Your task to perform on an android device: change your default location settings in chrome Image 0: 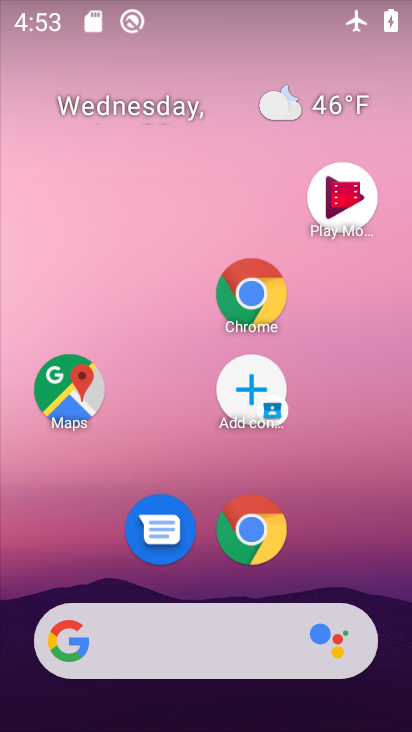
Step 0: click (271, 542)
Your task to perform on an android device: change your default location settings in chrome Image 1: 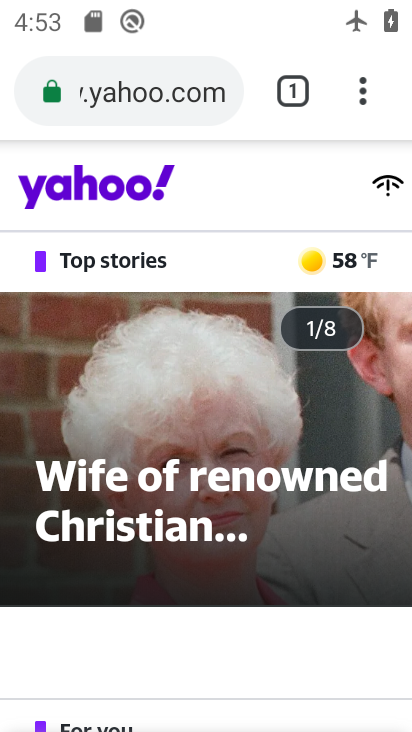
Step 1: drag from (363, 97) to (179, 572)
Your task to perform on an android device: change your default location settings in chrome Image 2: 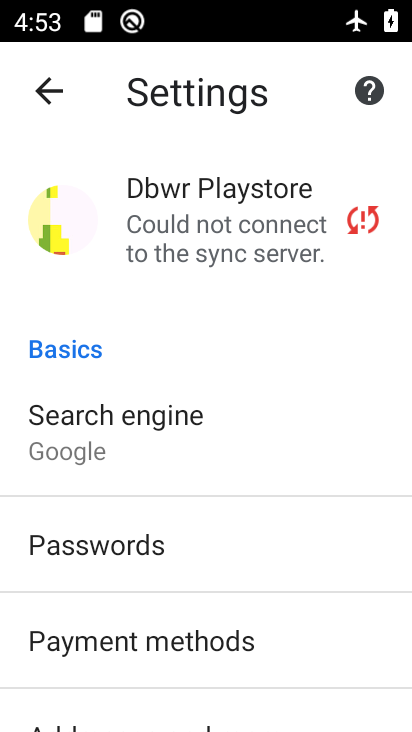
Step 2: drag from (222, 668) to (226, 260)
Your task to perform on an android device: change your default location settings in chrome Image 3: 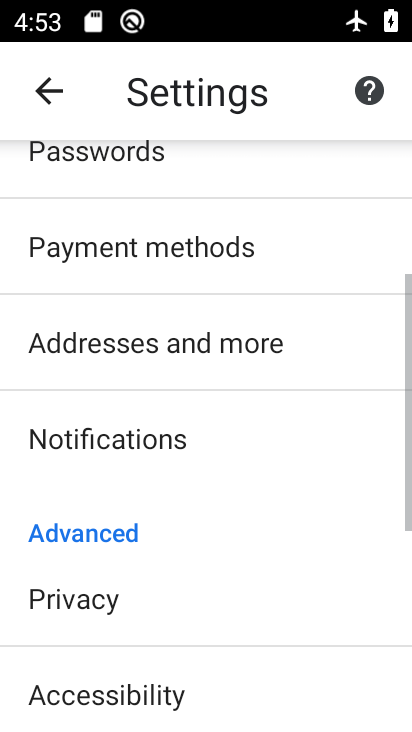
Step 3: drag from (174, 676) to (228, 389)
Your task to perform on an android device: change your default location settings in chrome Image 4: 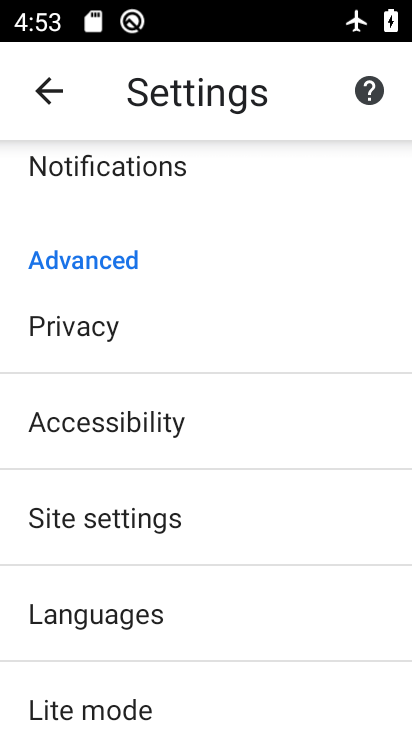
Step 4: click (165, 534)
Your task to perform on an android device: change your default location settings in chrome Image 5: 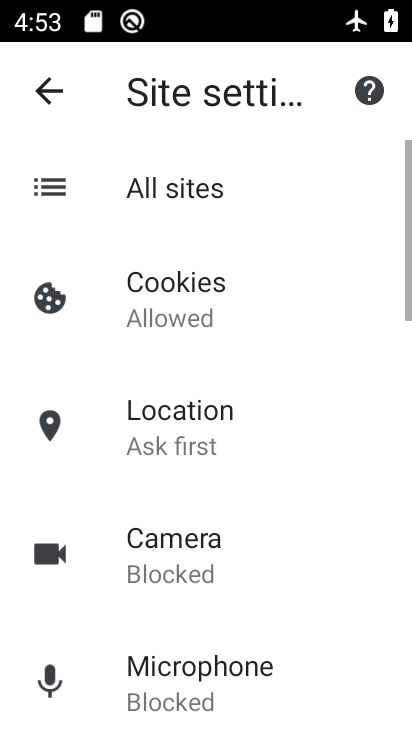
Step 5: click (227, 440)
Your task to perform on an android device: change your default location settings in chrome Image 6: 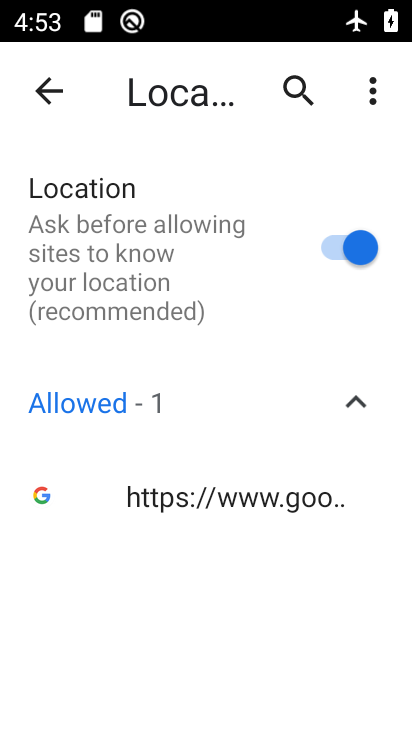
Step 6: click (354, 246)
Your task to perform on an android device: change your default location settings in chrome Image 7: 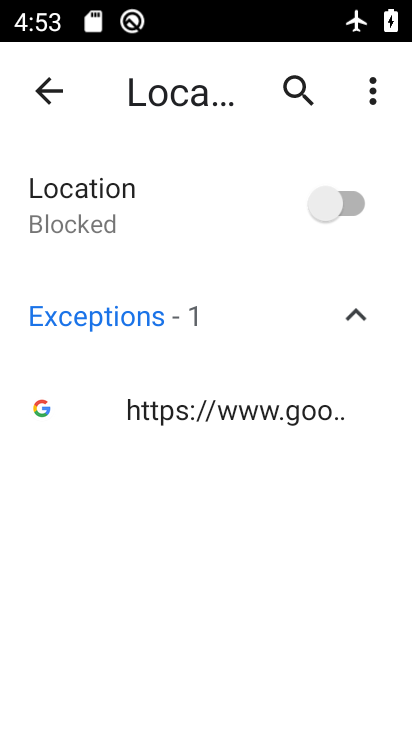
Step 7: task complete